Your task to perform on an android device: Go to Yahoo.com Image 0: 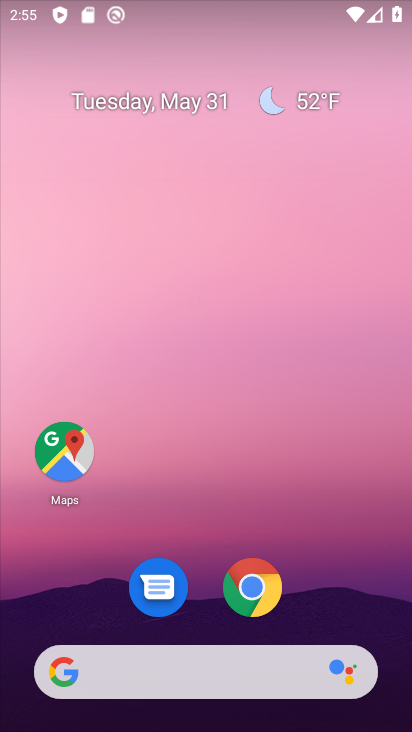
Step 0: click (243, 598)
Your task to perform on an android device: Go to Yahoo.com Image 1: 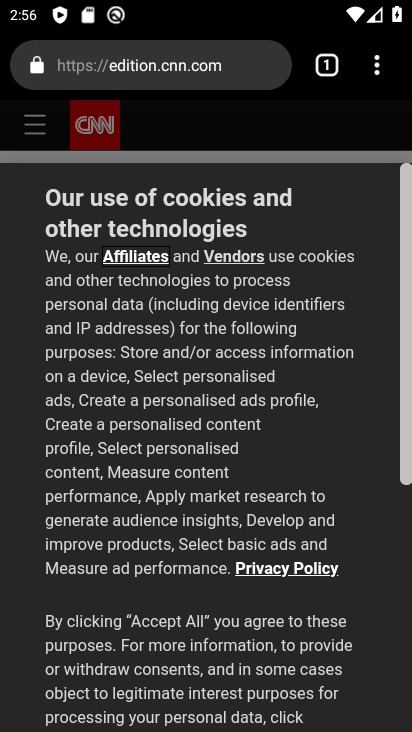
Step 1: click (332, 66)
Your task to perform on an android device: Go to Yahoo.com Image 2: 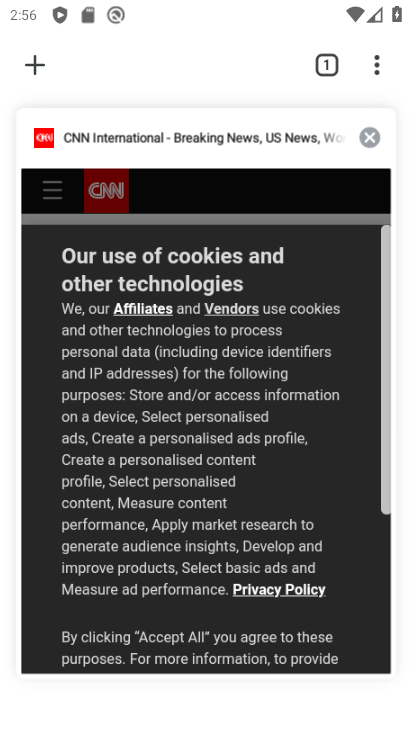
Step 2: click (36, 74)
Your task to perform on an android device: Go to Yahoo.com Image 3: 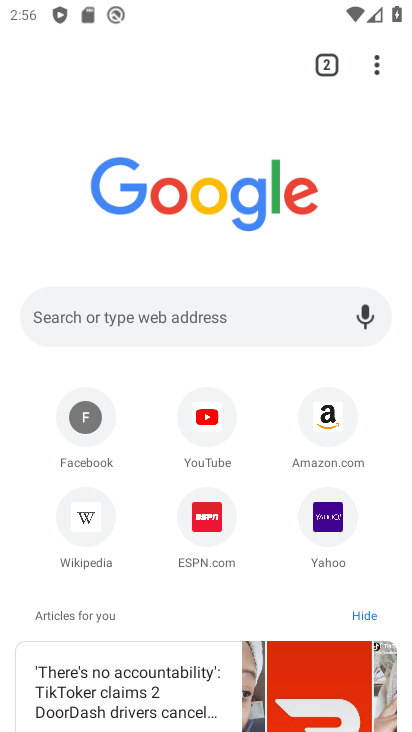
Step 3: click (312, 519)
Your task to perform on an android device: Go to Yahoo.com Image 4: 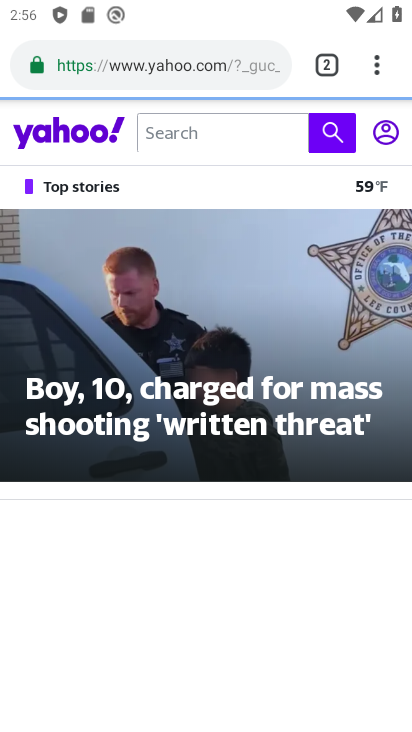
Step 4: task complete